Your task to perform on an android device: turn off notifications settings in the gmail app Image 0: 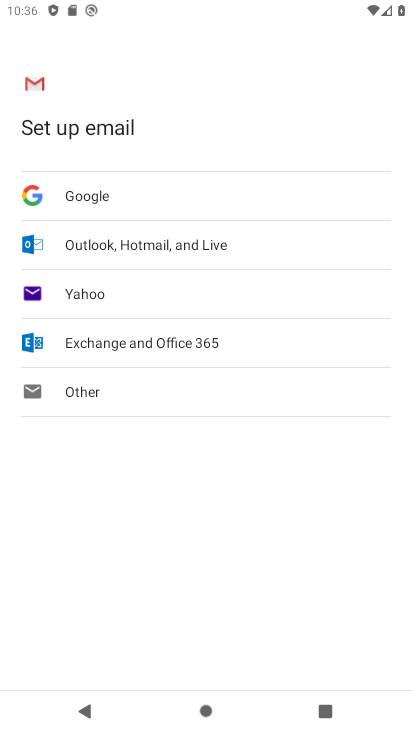
Step 0: press home button
Your task to perform on an android device: turn off notifications settings in the gmail app Image 1: 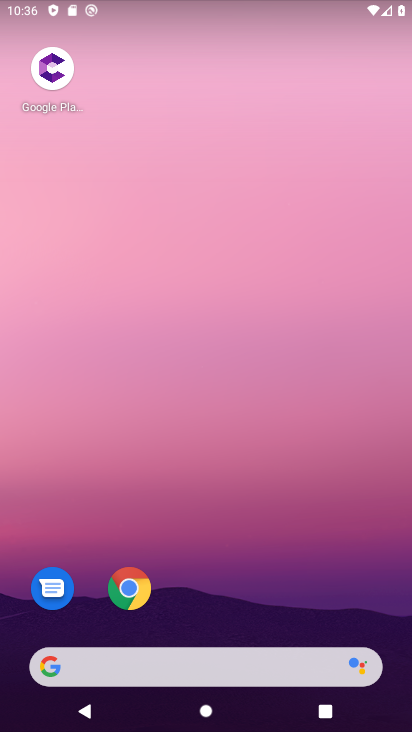
Step 1: drag from (393, 612) to (361, 74)
Your task to perform on an android device: turn off notifications settings in the gmail app Image 2: 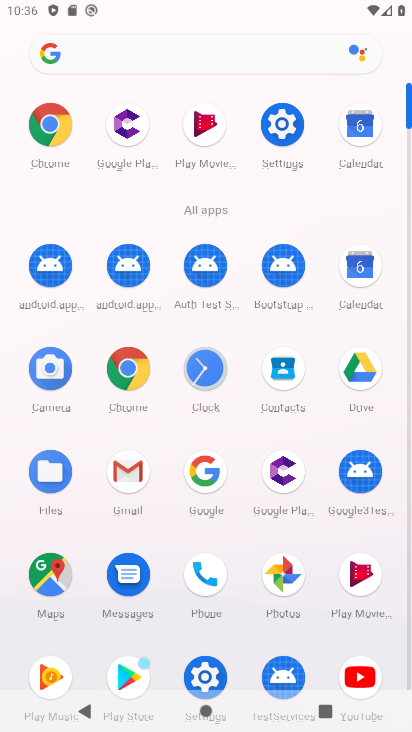
Step 2: click (126, 471)
Your task to perform on an android device: turn off notifications settings in the gmail app Image 3: 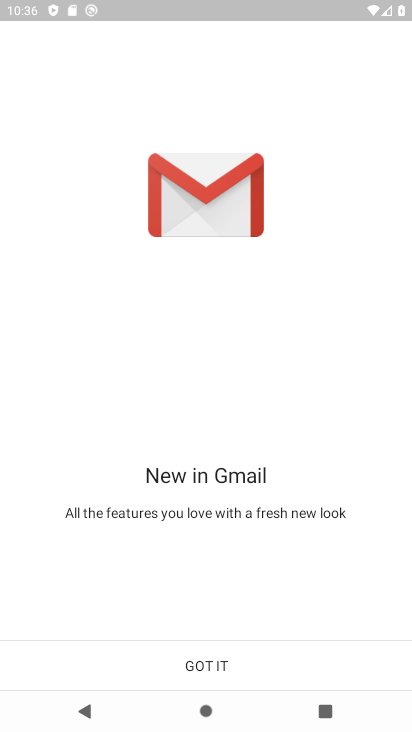
Step 3: click (199, 667)
Your task to perform on an android device: turn off notifications settings in the gmail app Image 4: 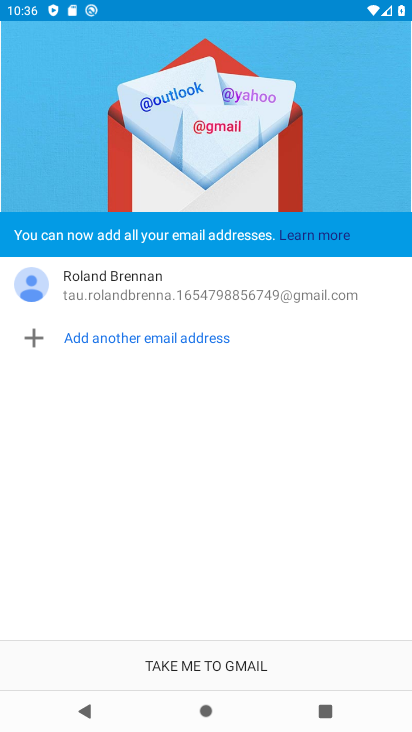
Step 4: click (202, 664)
Your task to perform on an android device: turn off notifications settings in the gmail app Image 5: 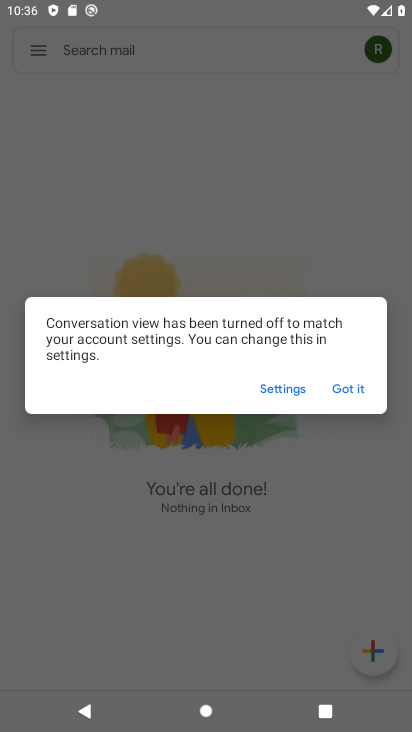
Step 5: click (340, 390)
Your task to perform on an android device: turn off notifications settings in the gmail app Image 6: 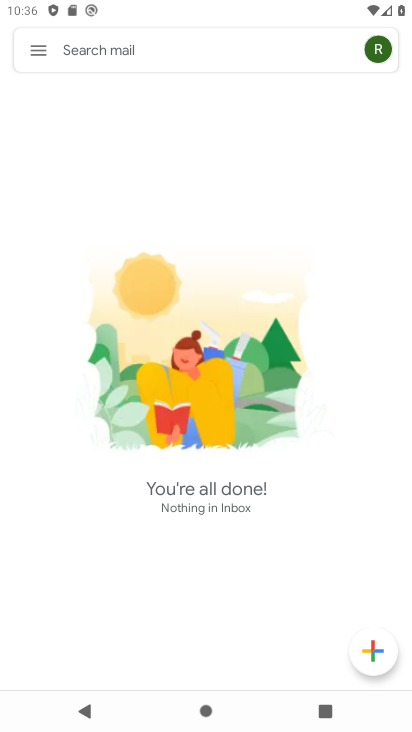
Step 6: click (37, 54)
Your task to perform on an android device: turn off notifications settings in the gmail app Image 7: 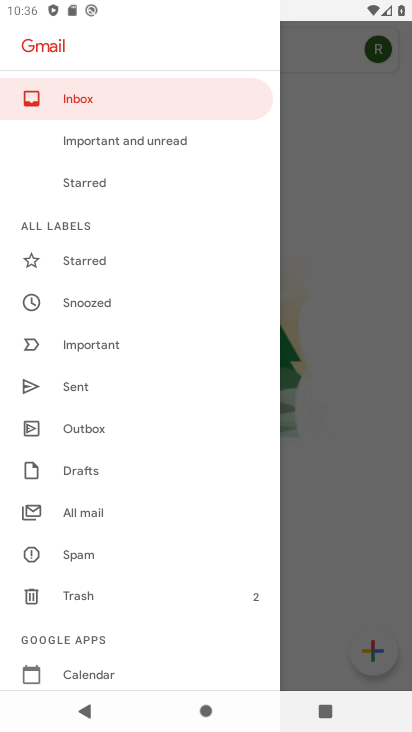
Step 7: drag from (177, 636) to (180, 262)
Your task to perform on an android device: turn off notifications settings in the gmail app Image 8: 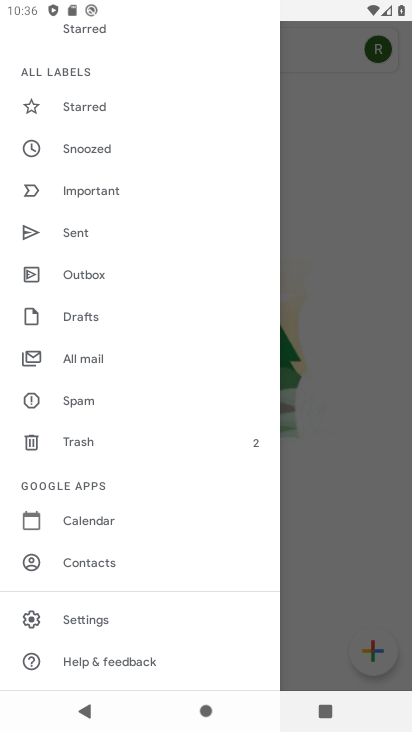
Step 8: click (93, 620)
Your task to perform on an android device: turn off notifications settings in the gmail app Image 9: 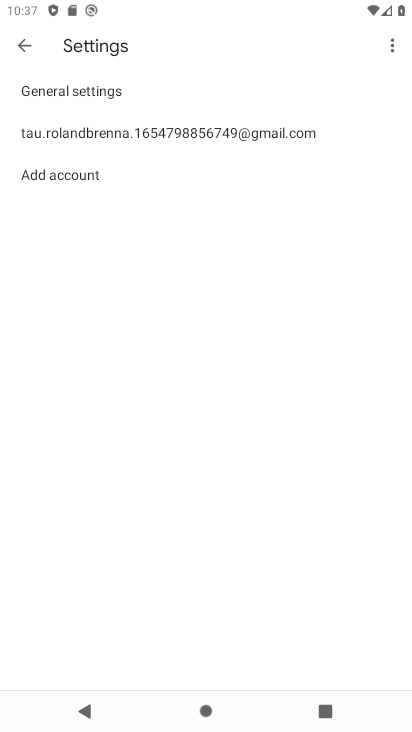
Step 9: click (135, 137)
Your task to perform on an android device: turn off notifications settings in the gmail app Image 10: 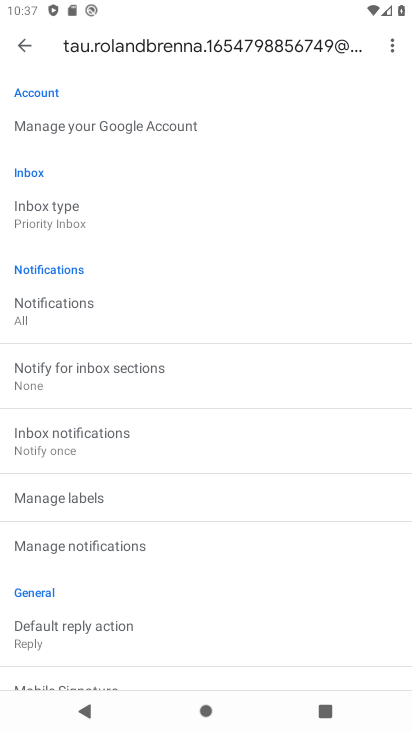
Step 10: click (69, 546)
Your task to perform on an android device: turn off notifications settings in the gmail app Image 11: 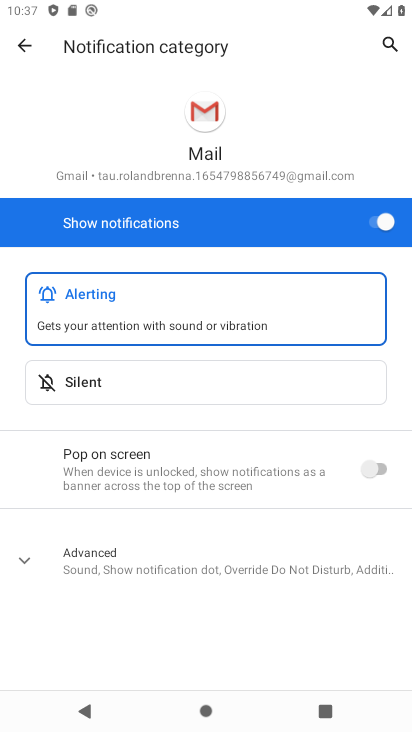
Step 11: click (376, 220)
Your task to perform on an android device: turn off notifications settings in the gmail app Image 12: 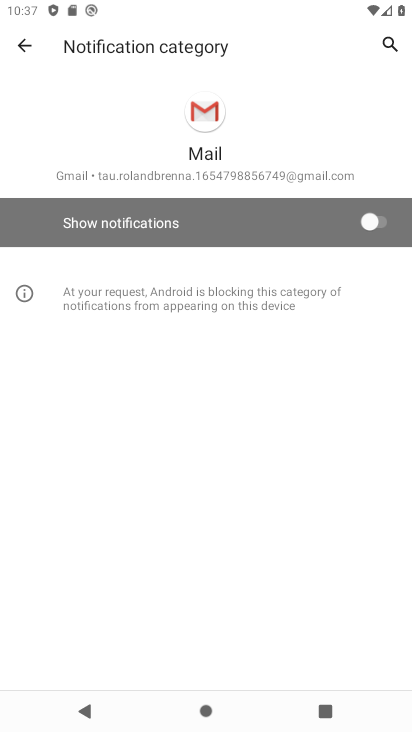
Step 12: task complete